Your task to perform on an android device: open app "Google Play Music" (install if not already installed) Image 0: 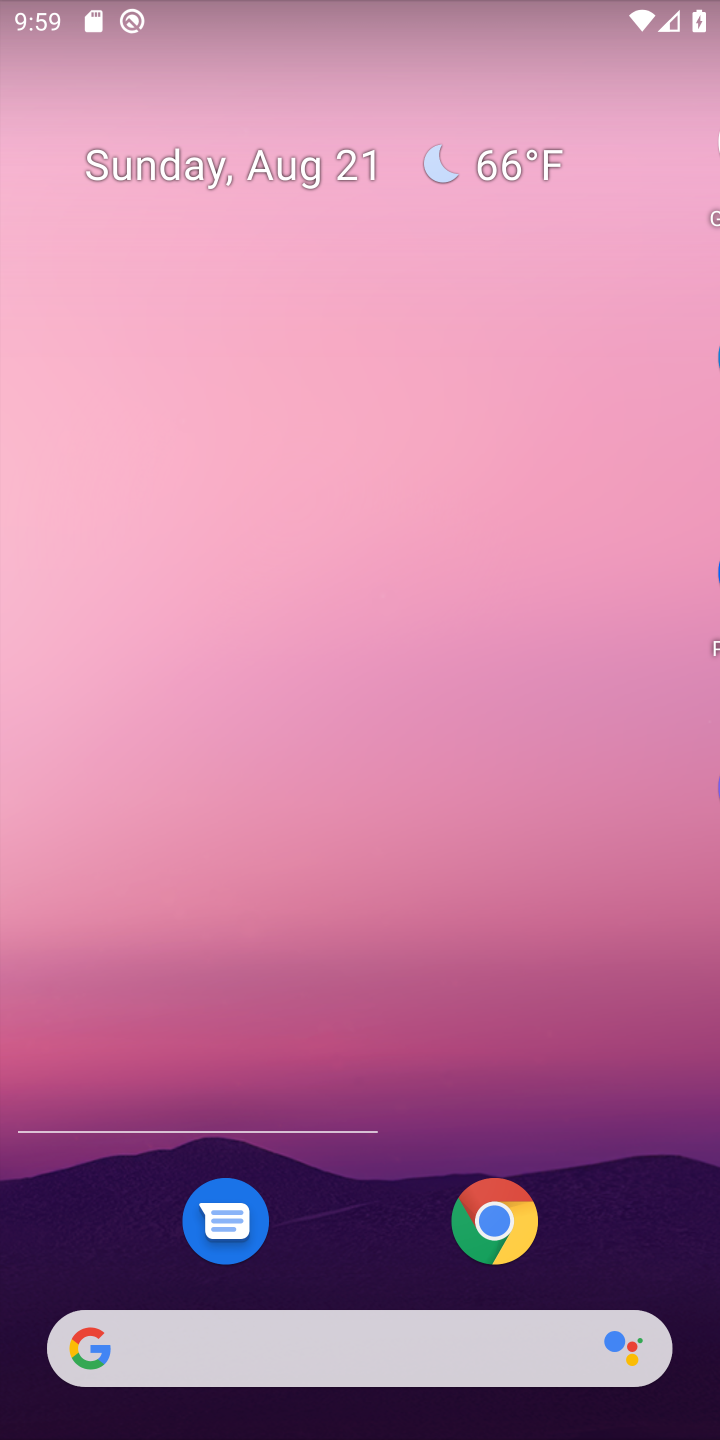
Step 0: click (536, 106)
Your task to perform on an android device: open app "Google Play Music" (install if not already installed) Image 1: 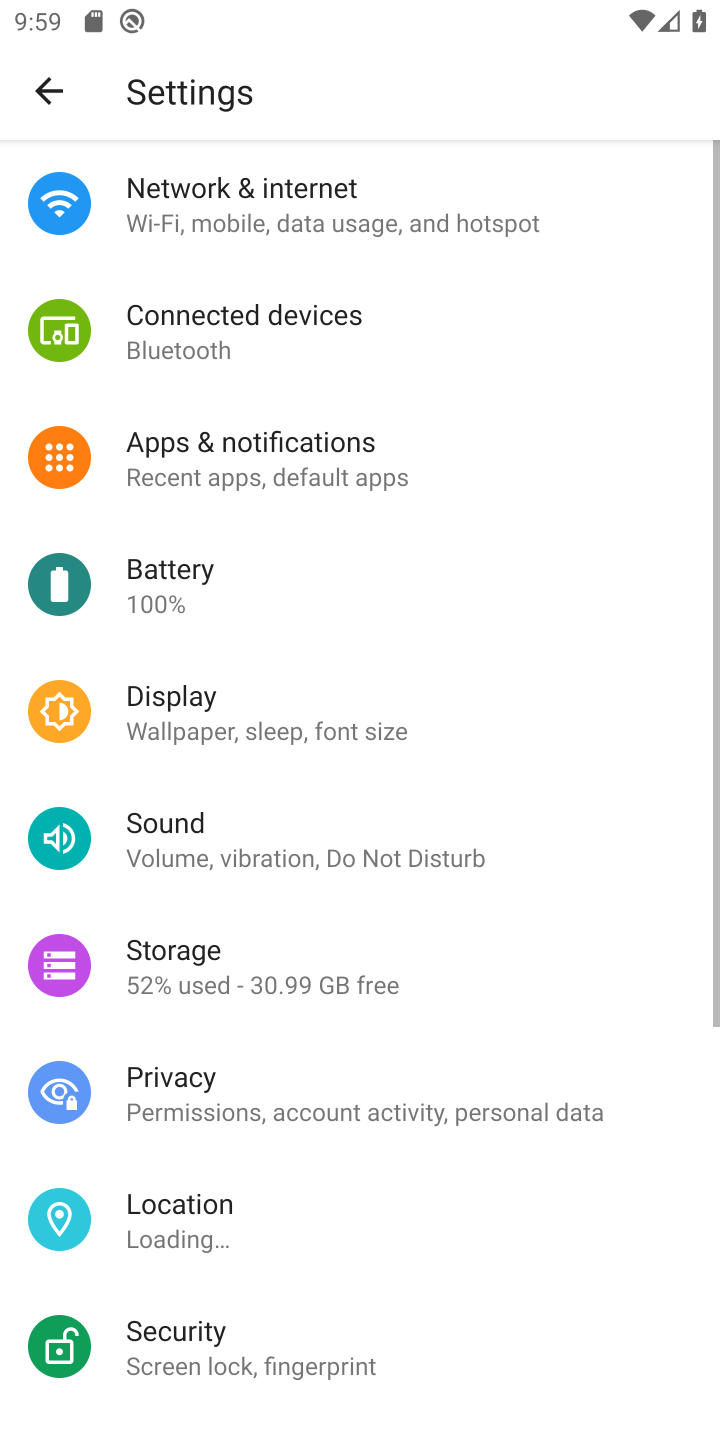
Step 1: press home button
Your task to perform on an android device: open app "Google Play Music" (install if not already installed) Image 2: 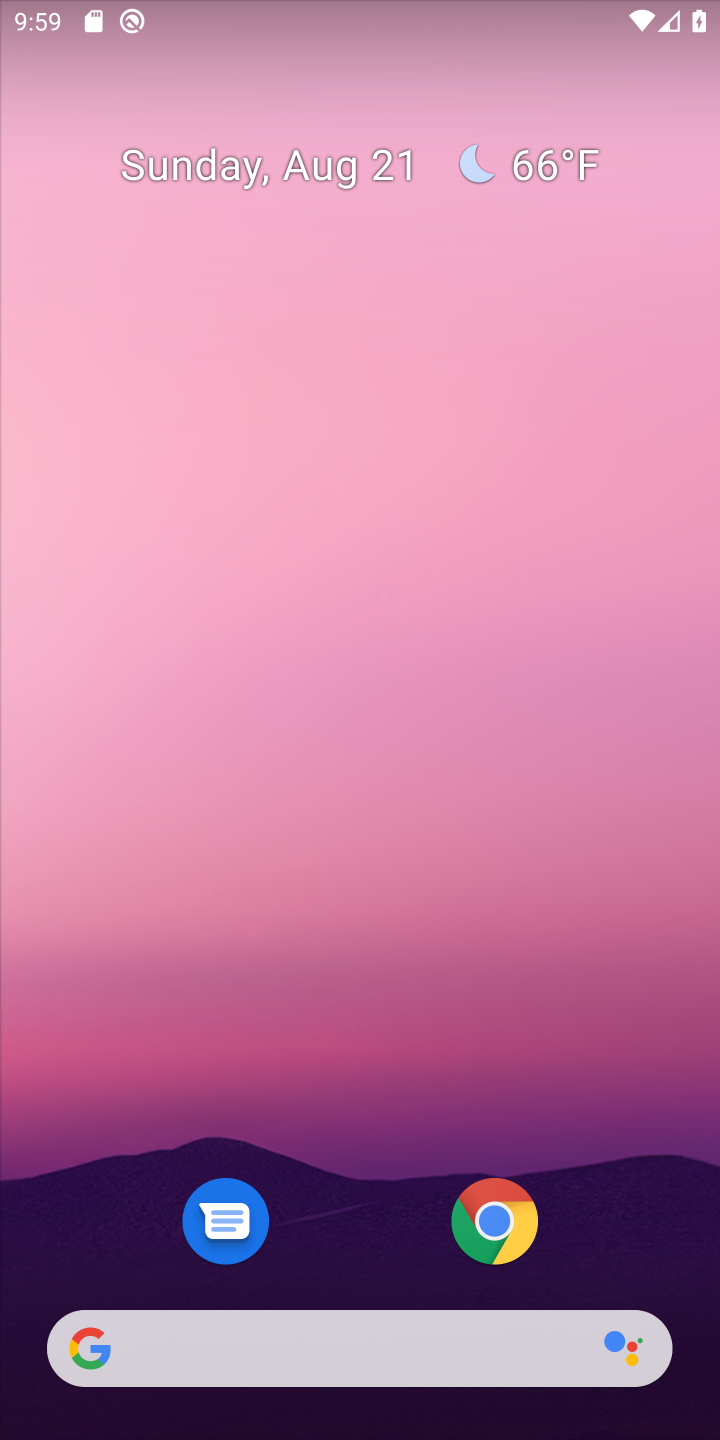
Step 2: drag from (377, 1137) to (243, 240)
Your task to perform on an android device: open app "Google Play Music" (install if not already installed) Image 3: 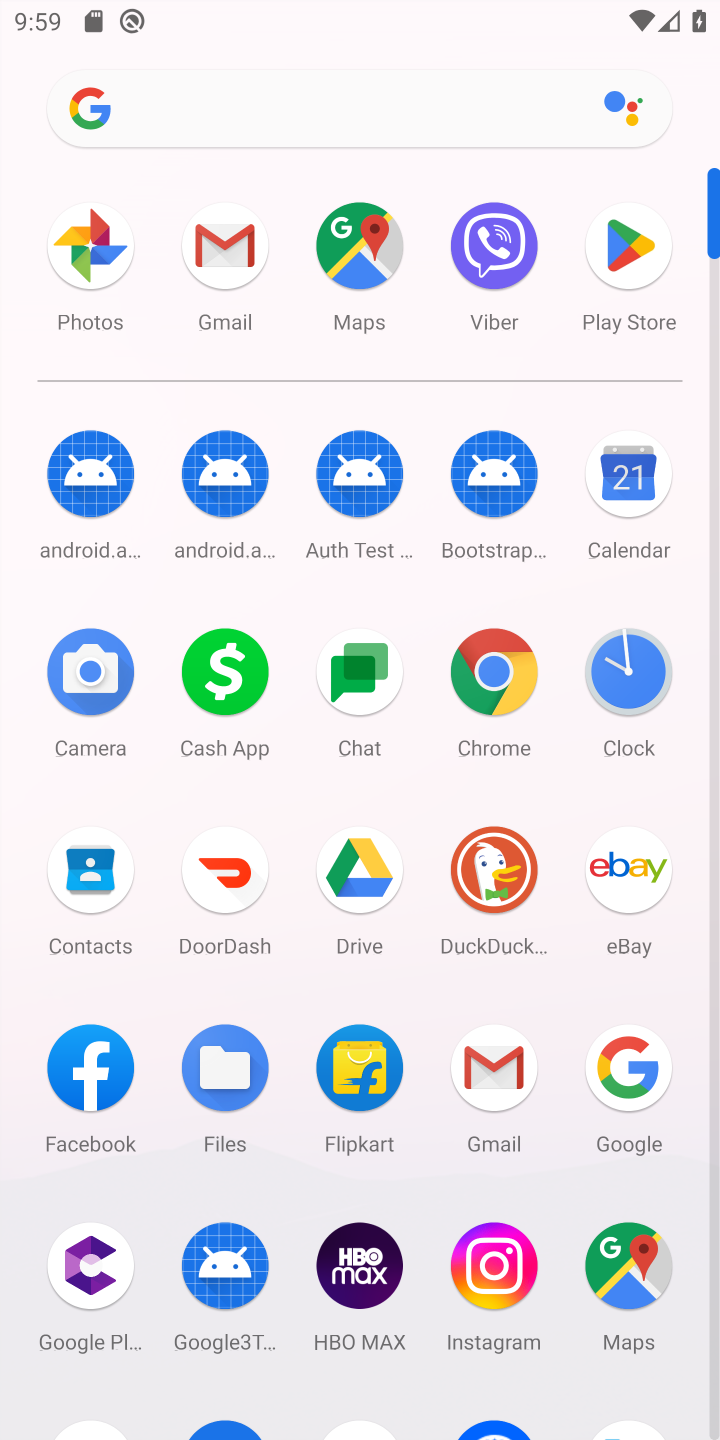
Step 3: click (610, 257)
Your task to perform on an android device: open app "Google Play Music" (install if not already installed) Image 4: 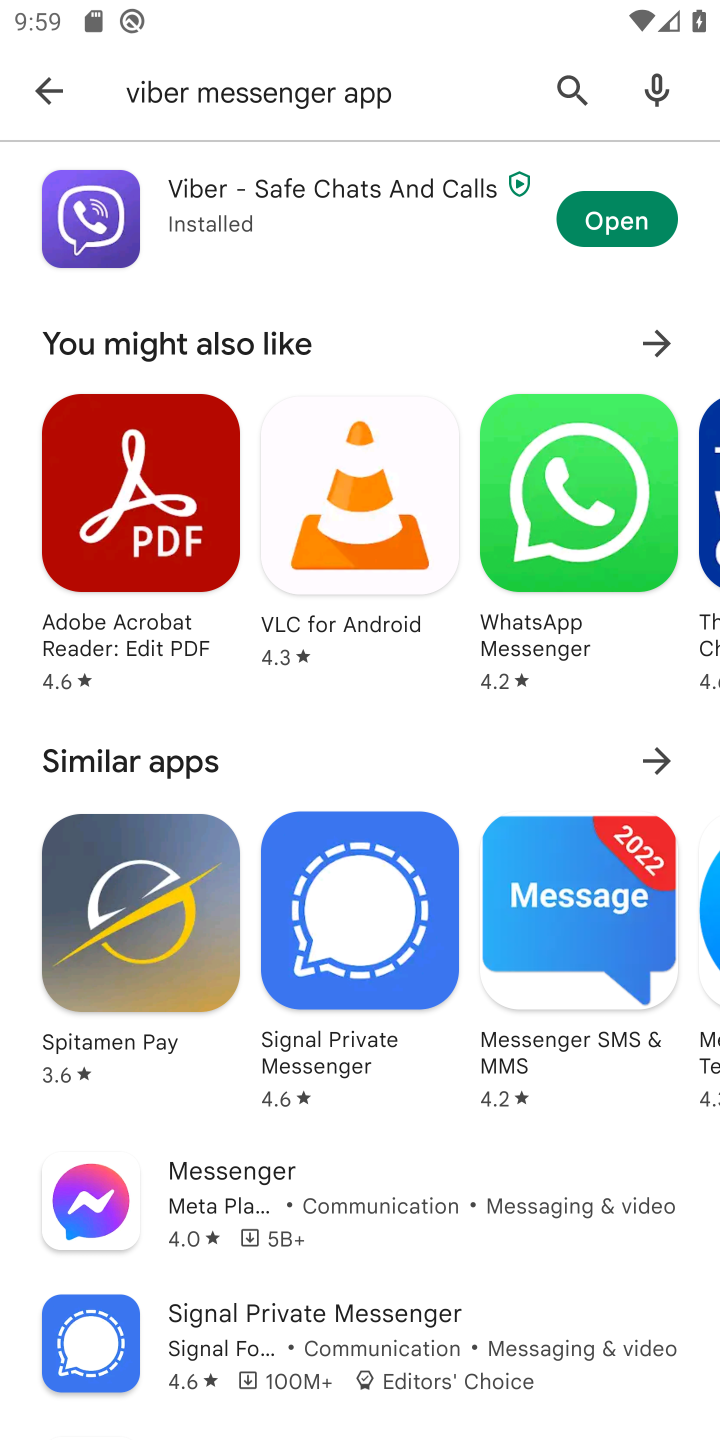
Step 4: click (560, 85)
Your task to perform on an android device: open app "Google Play Music" (install if not already installed) Image 5: 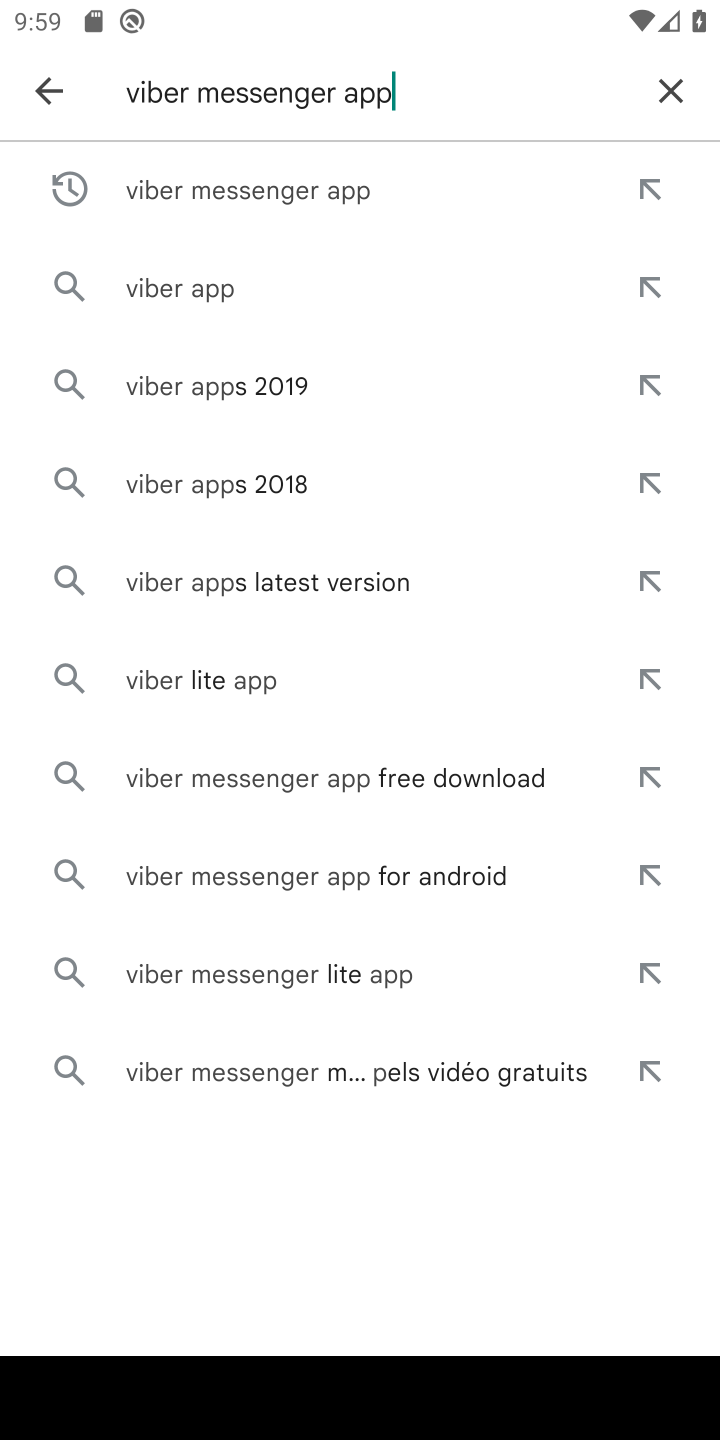
Step 5: click (669, 85)
Your task to perform on an android device: open app "Google Play Music" (install if not already installed) Image 6: 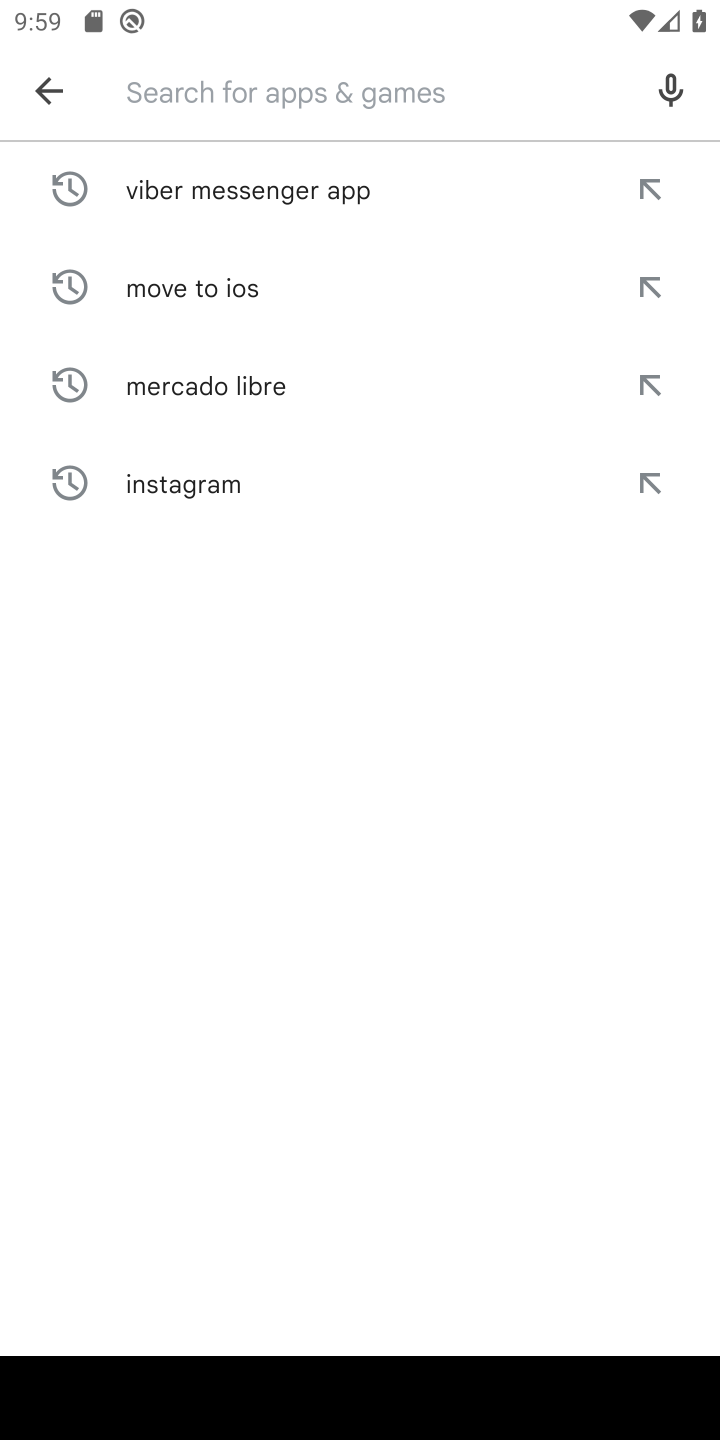
Step 6: type "Google Play Music"
Your task to perform on an android device: open app "Google Play Music" (install if not already installed) Image 7: 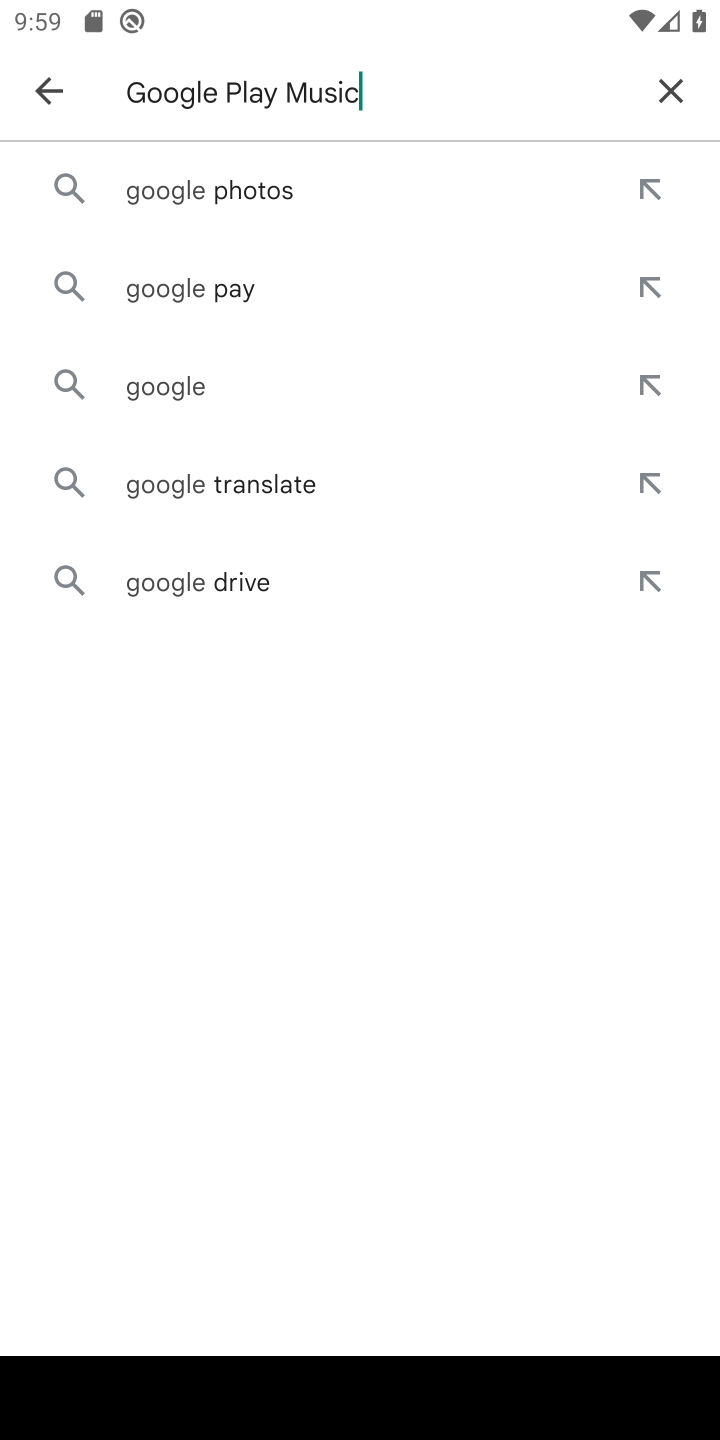
Step 7: type ""
Your task to perform on an android device: open app "Google Play Music" (install if not already installed) Image 8: 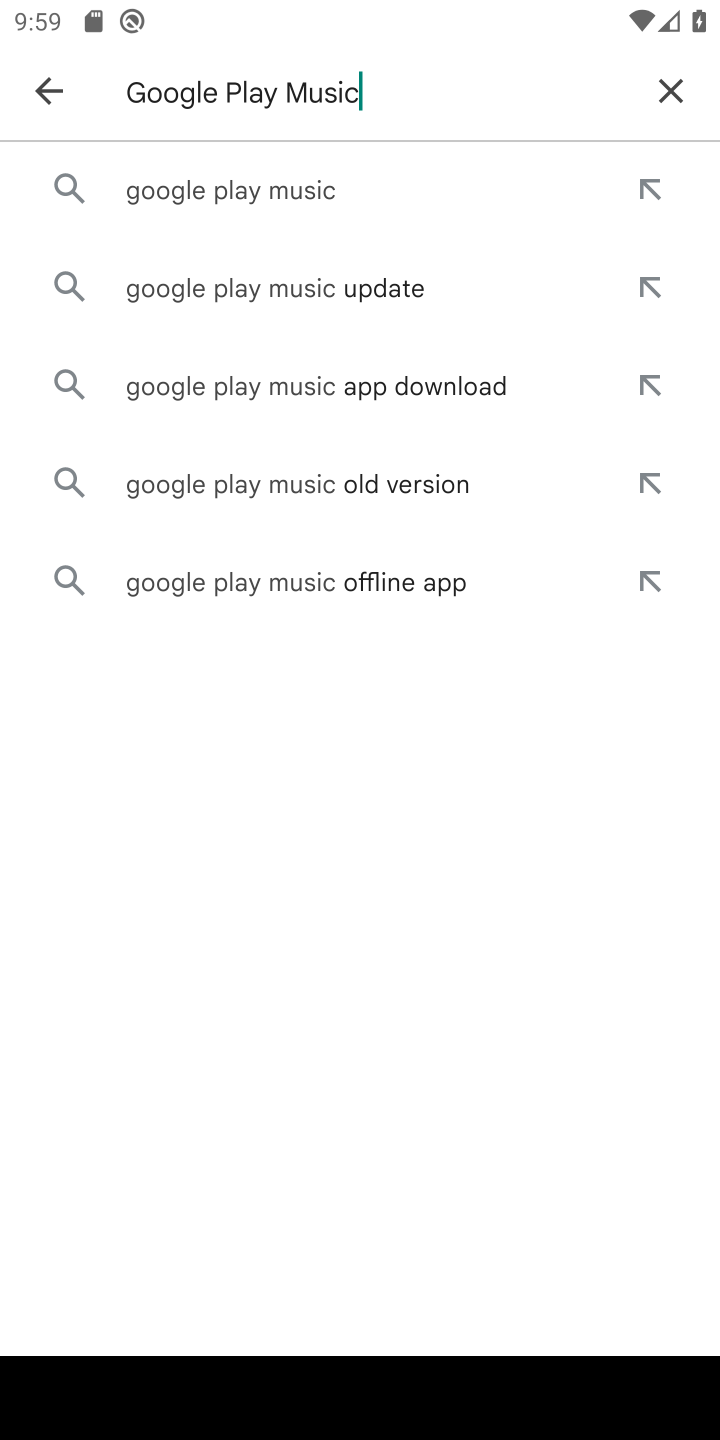
Step 8: click (315, 202)
Your task to perform on an android device: open app "Google Play Music" (install if not already installed) Image 9: 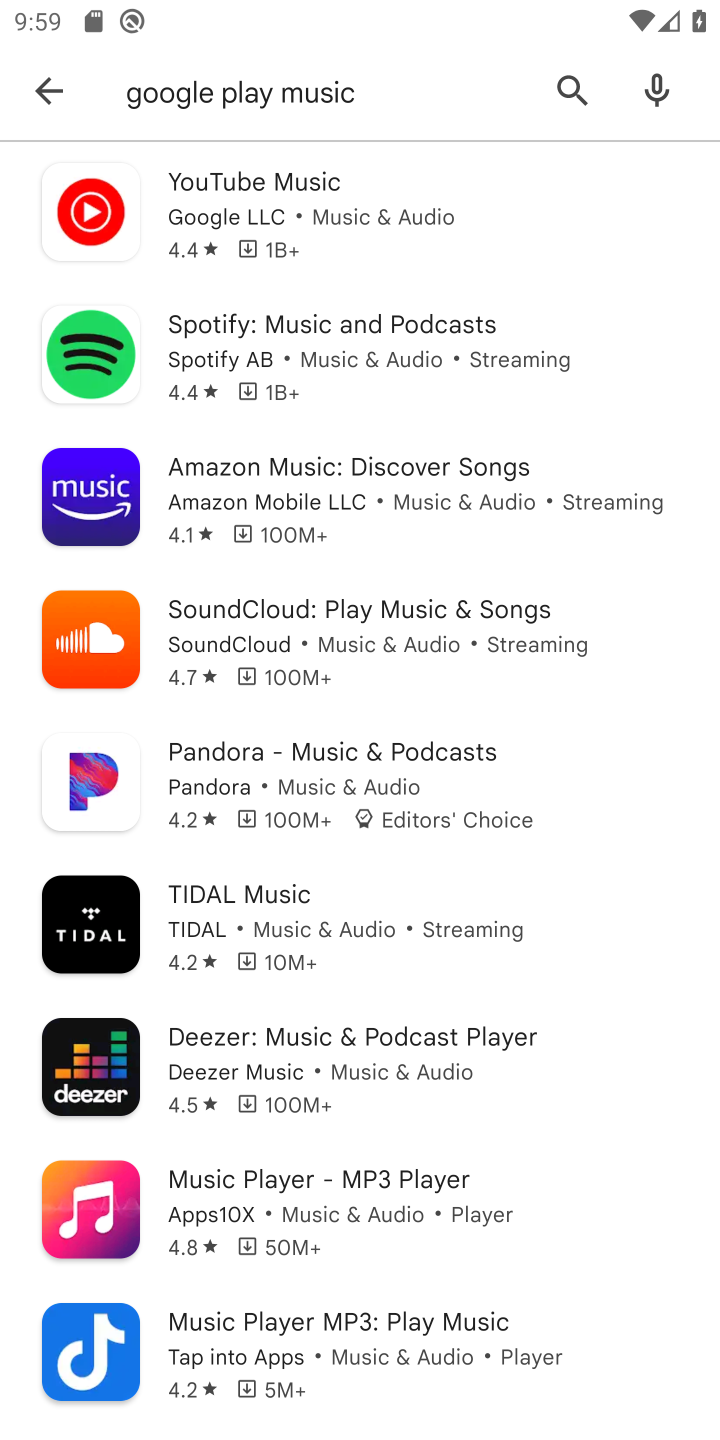
Step 9: task complete